Your task to perform on an android device: Open Google Chrome and click the shortcut for Amazon.com Image 0: 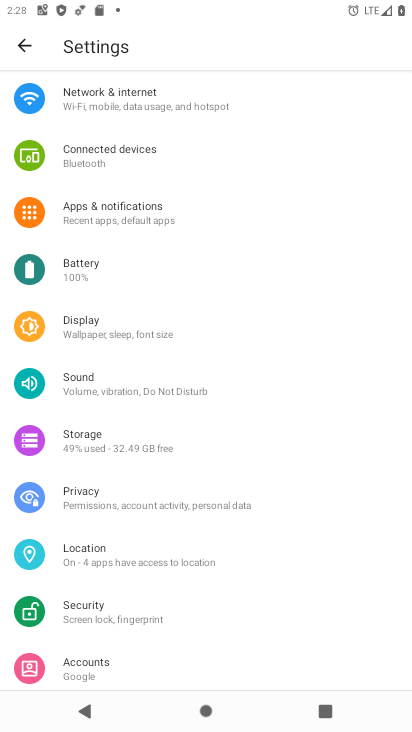
Step 0: press home button
Your task to perform on an android device: Open Google Chrome and click the shortcut for Amazon.com Image 1: 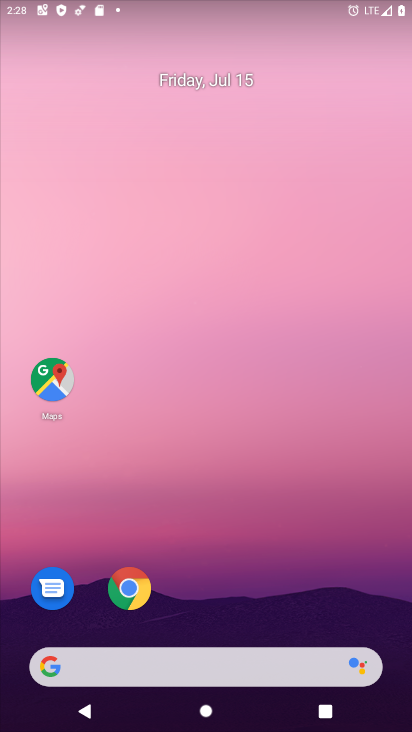
Step 1: click (129, 590)
Your task to perform on an android device: Open Google Chrome and click the shortcut for Amazon.com Image 2: 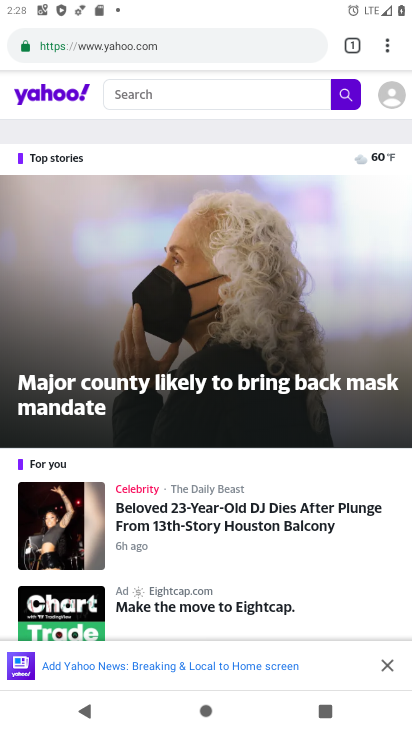
Step 2: click (275, 48)
Your task to perform on an android device: Open Google Chrome and click the shortcut for Amazon.com Image 3: 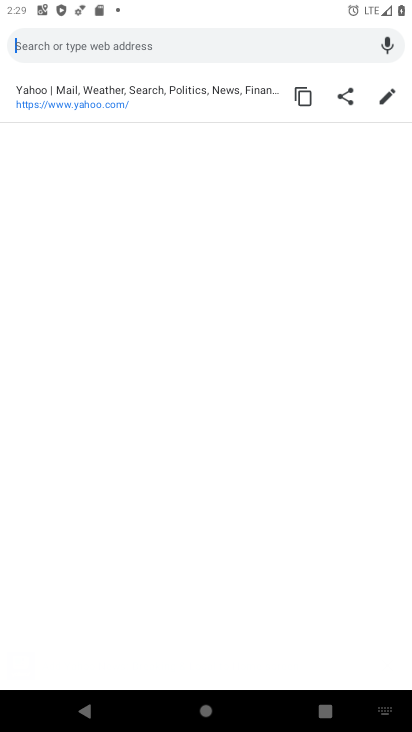
Step 3: type "Amazon.com"
Your task to perform on an android device: Open Google Chrome and click the shortcut for Amazon.com Image 4: 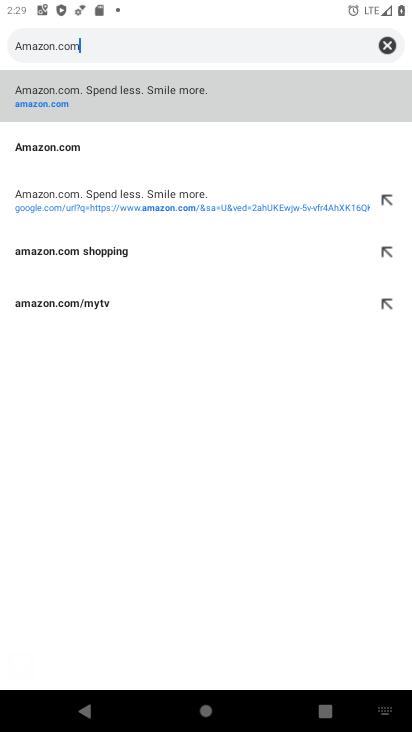
Step 4: type ""
Your task to perform on an android device: Open Google Chrome and click the shortcut for Amazon.com Image 5: 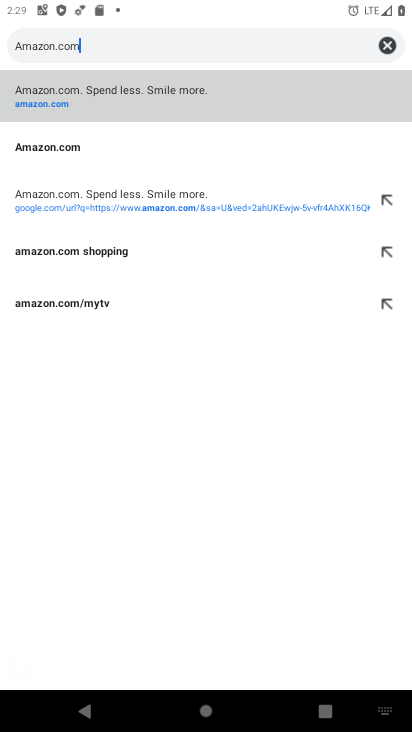
Step 5: click (66, 148)
Your task to perform on an android device: Open Google Chrome and click the shortcut for Amazon.com Image 6: 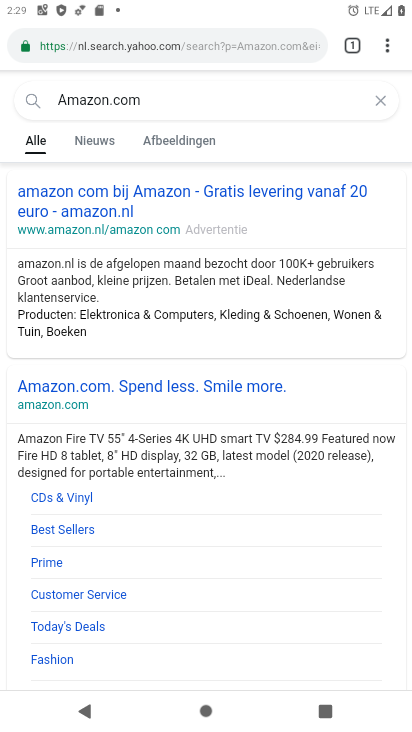
Step 6: click (73, 400)
Your task to perform on an android device: Open Google Chrome and click the shortcut for Amazon.com Image 7: 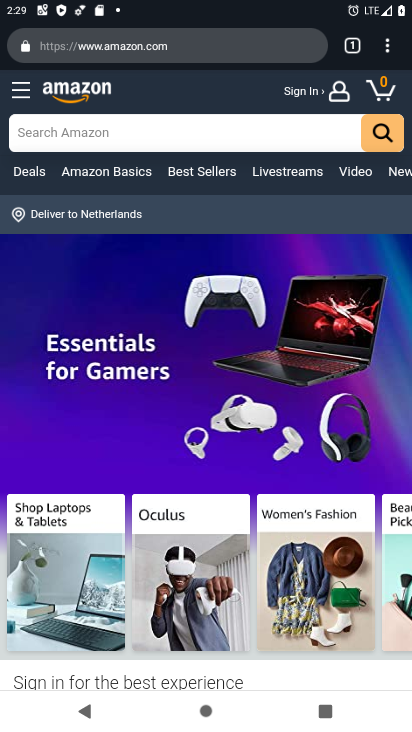
Step 7: click (387, 49)
Your task to perform on an android device: Open Google Chrome and click the shortcut for Amazon.com Image 8: 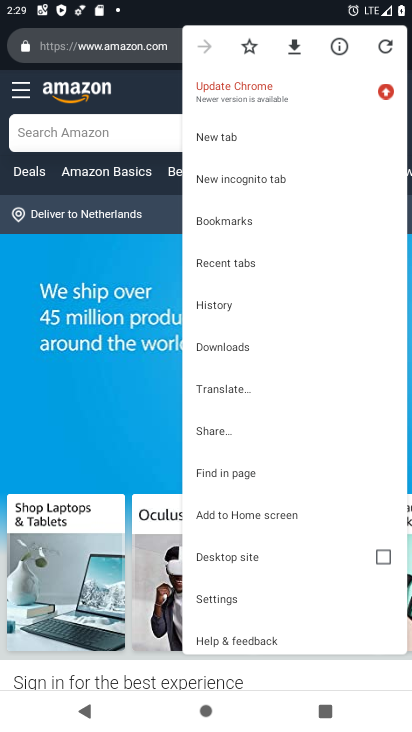
Step 8: click (248, 516)
Your task to perform on an android device: Open Google Chrome and click the shortcut for Amazon.com Image 9: 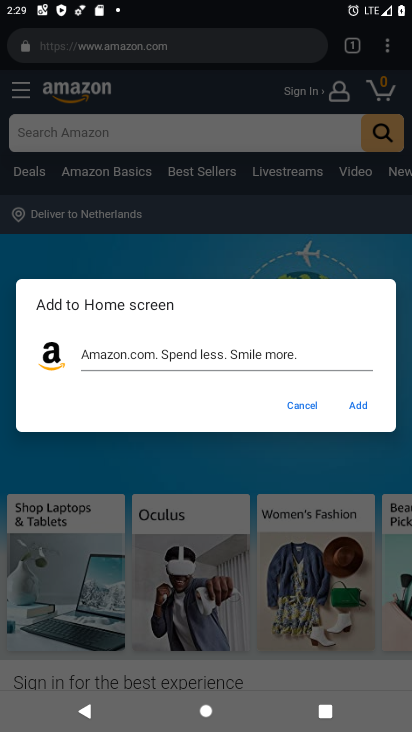
Step 9: click (358, 406)
Your task to perform on an android device: Open Google Chrome and click the shortcut for Amazon.com Image 10: 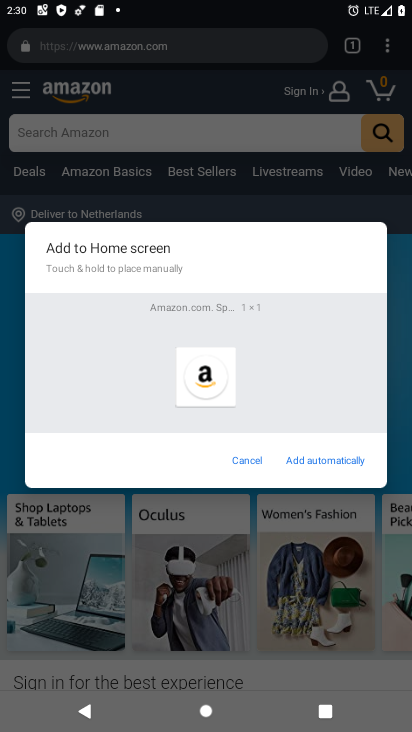
Step 10: click (316, 465)
Your task to perform on an android device: Open Google Chrome and click the shortcut for Amazon.com Image 11: 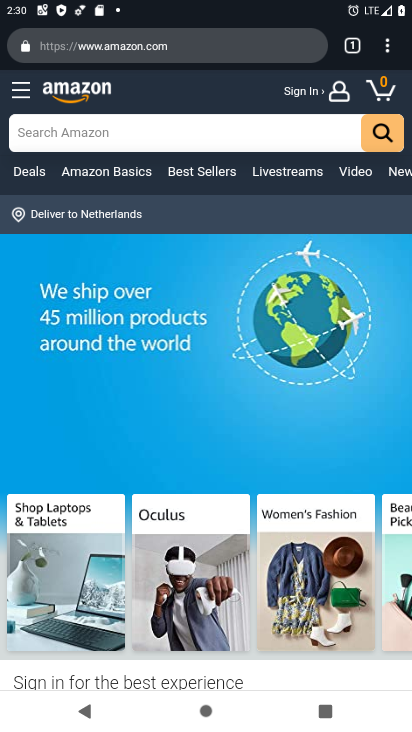
Step 11: task complete